Your task to perform on an android device: turn off airplane mode Image 0: 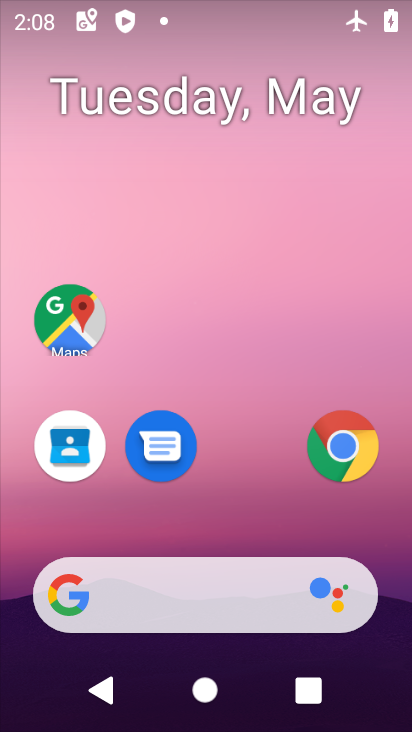
Step 0: drag from (165, 522) to (142, 4)
Your task to perform on an android device: turn off airplane mode Image 1: 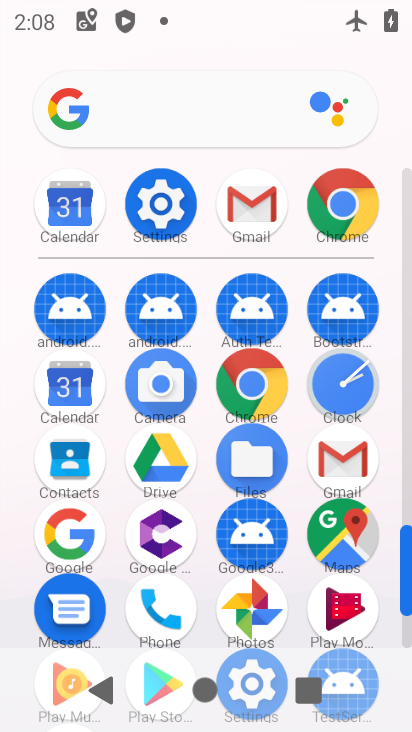
Step 1: click (170, 198)
Your task to perform on an android device: turn off airplane mode Image 2: 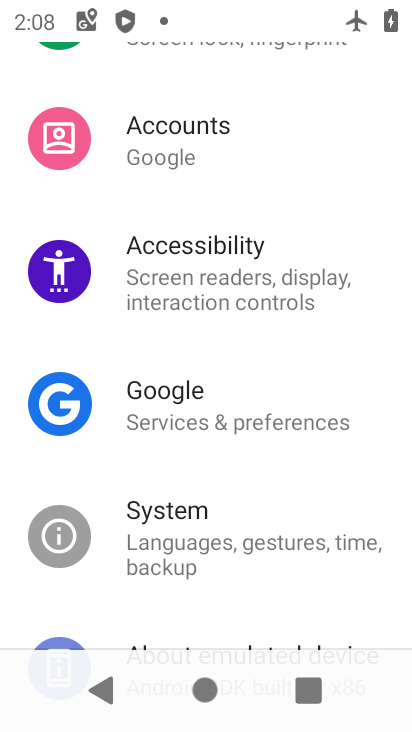
Step 2: drag from (177, 192) to (189, 585)
Your task to perform on an android device: turn off airplane mode Image 3: 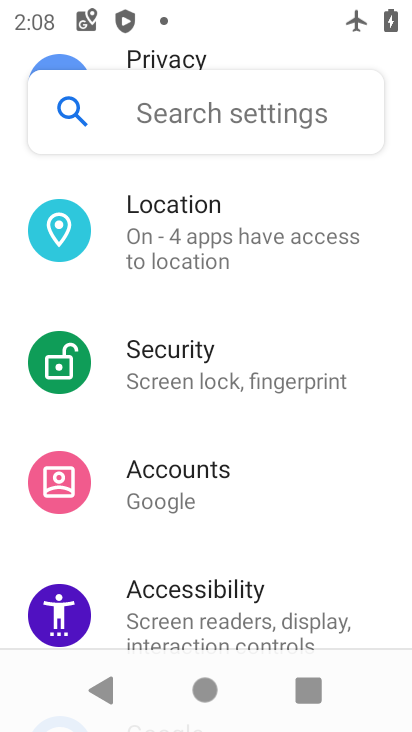
Step 3: drag from (213, 236) to (216, 614)
Your task to perform on an android device: turn off airplane mode Image 4: 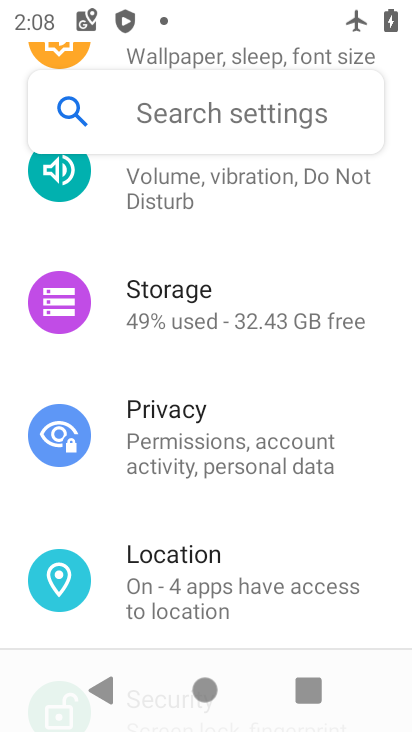
Step 4: drag from (232, 201) to (219, 630)
Your task to perform on an android device: turn off airplane mode Image 5: 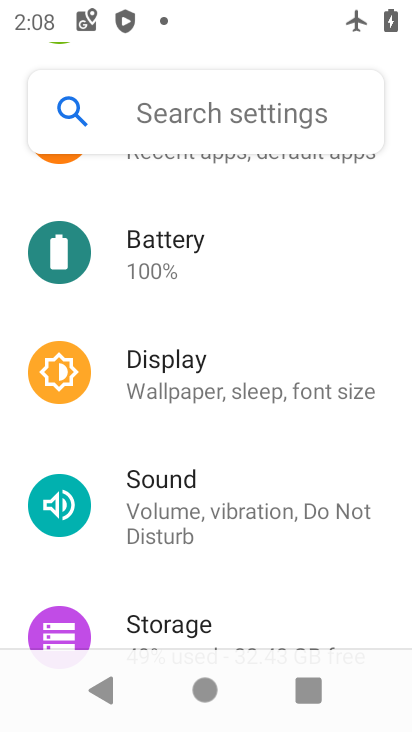
Step 5: drag from (231, 219) to (243, 684)
Your task to perform on an android device: turn off airplane mode Image 6: 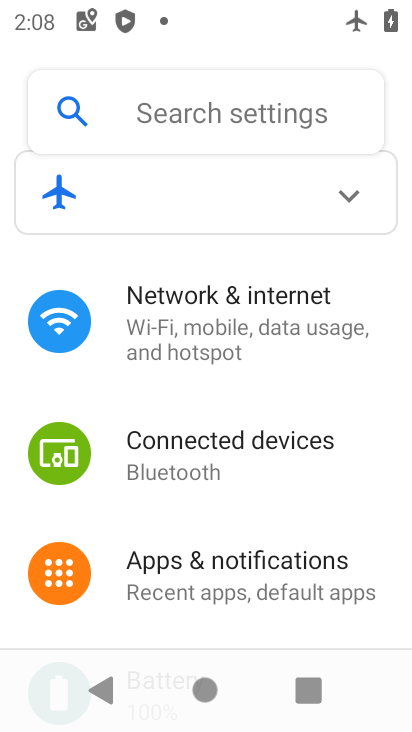
Step 6: click (233, 340)
Your task to perform on an android device: turn off airplane mode Image 7: 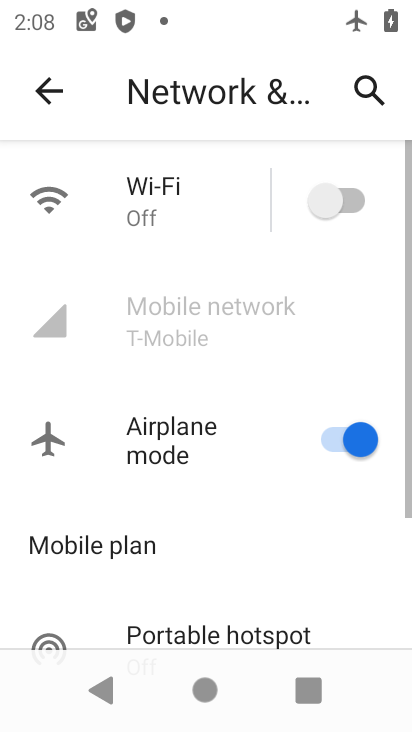
Step 7: click (339, 436)
Your task to perform on an android device: turn off airplane mode Image 8: 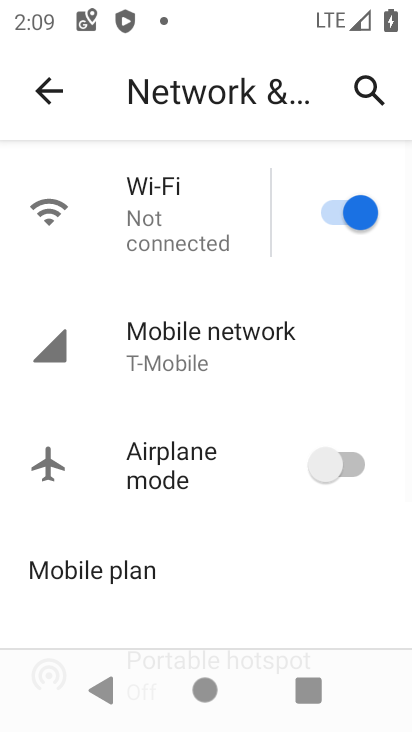
Step 8: task complete